Your task to perform on an android device: turn on wifi Image 0: 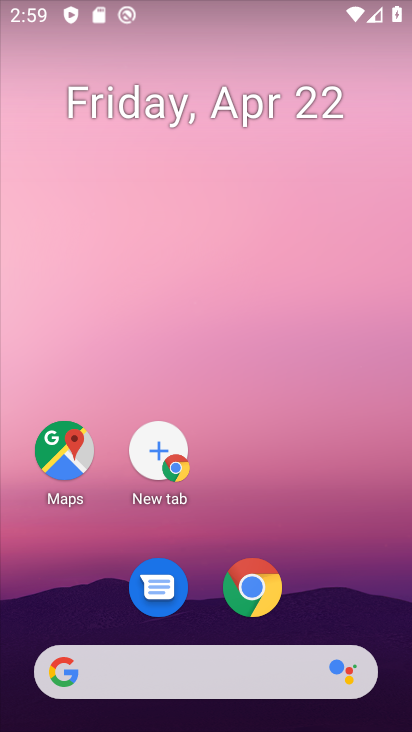
Step 0: drag from (197, 11) to (229, 516)
Your task to perform on an android device: turn on wifi Image 1: 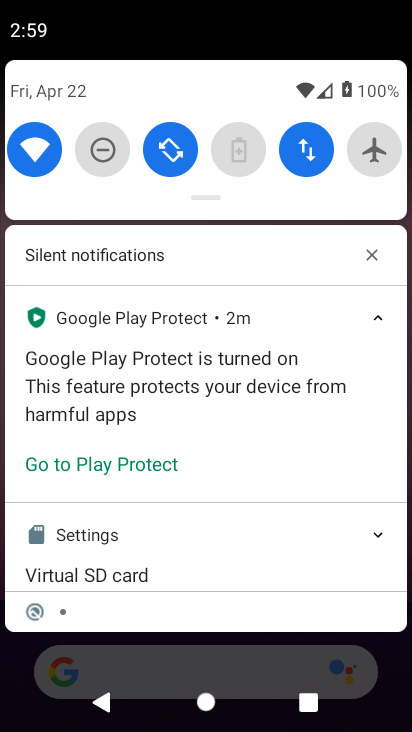
Step 1: task complete